Your task to perform on an android device: Go to Android settings Image 0: 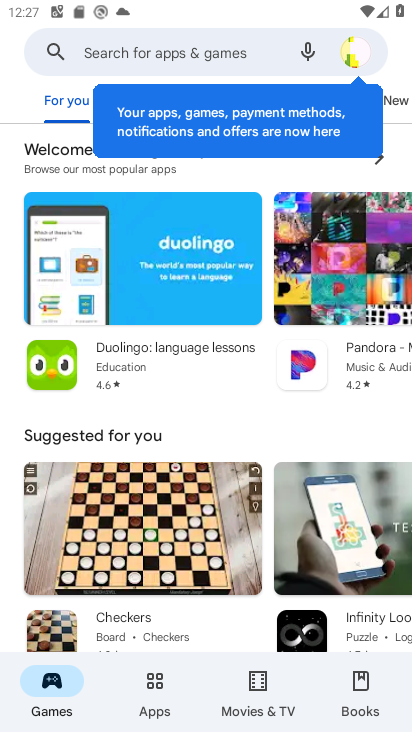
Step 0: press home button
Your task to perform on an android device: Go to Android settings Image 1: 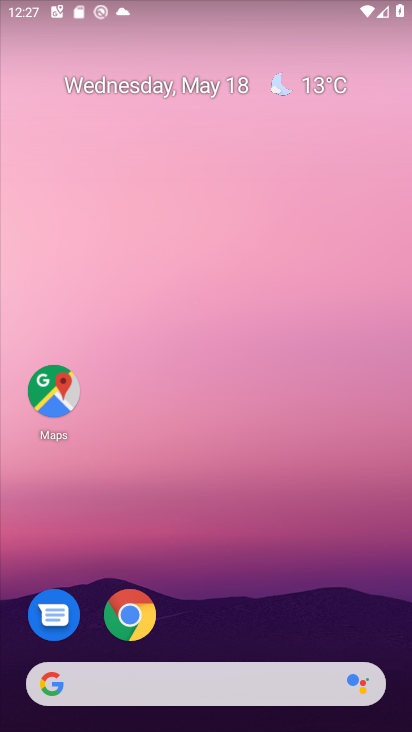
Step 1: click (382, 378)
Your task to perform on an android device: Go to Android settings Image 2: 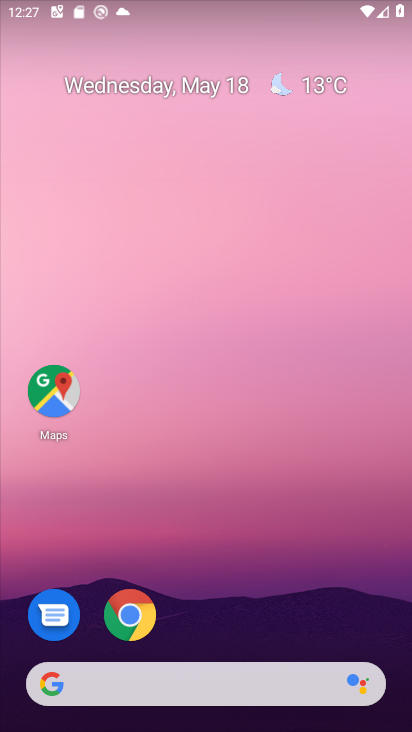
Step 2: drag from (329, 459) to (262, 288)
Your task to perform on an android device: Go to Android settings Image 3: 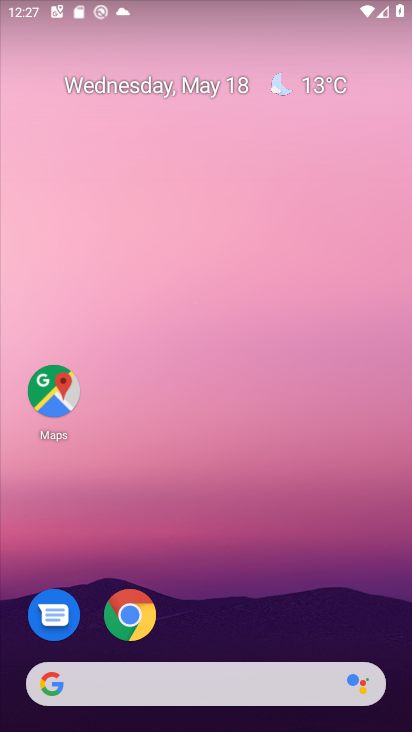
Step 3: drag from (395, 661) to (387, 325)
Your task to perform on an android device: Go to Android settings Image 4: 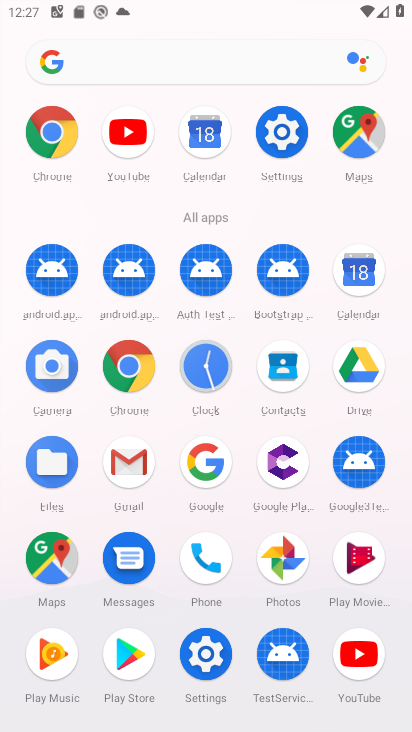
Step 4: click (200, 647)
Your task to perform on an android device: Go to Android settings Image 5: 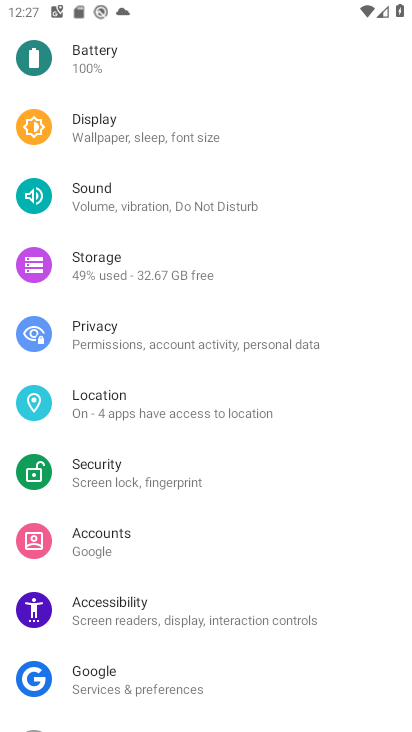
Step 5: task complete